Your task to perform on an android device: Open Google Chrome Image 0: 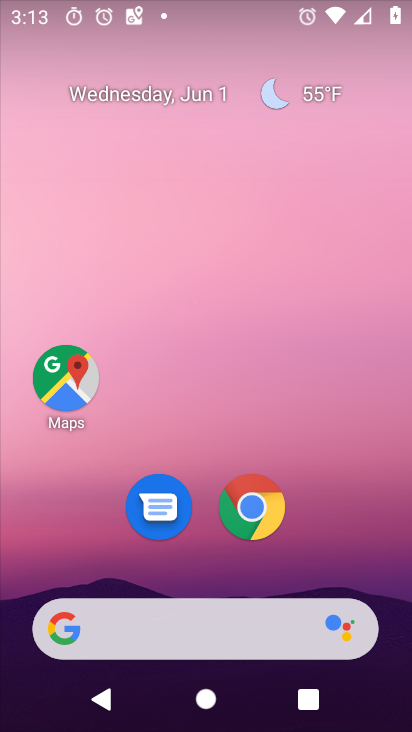
Step 0: click (259, 510)
Your task to perform on an android device: Open Google Chrome Image 1: 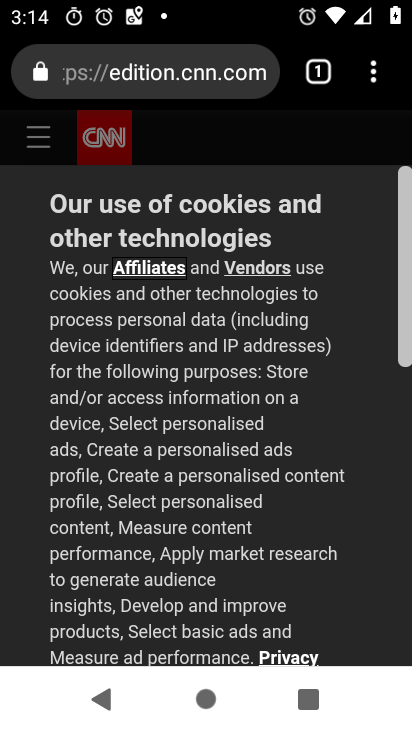
Step 1: task complete